Your task to perform on an android device: Search for hotels in Seattle Image 0: 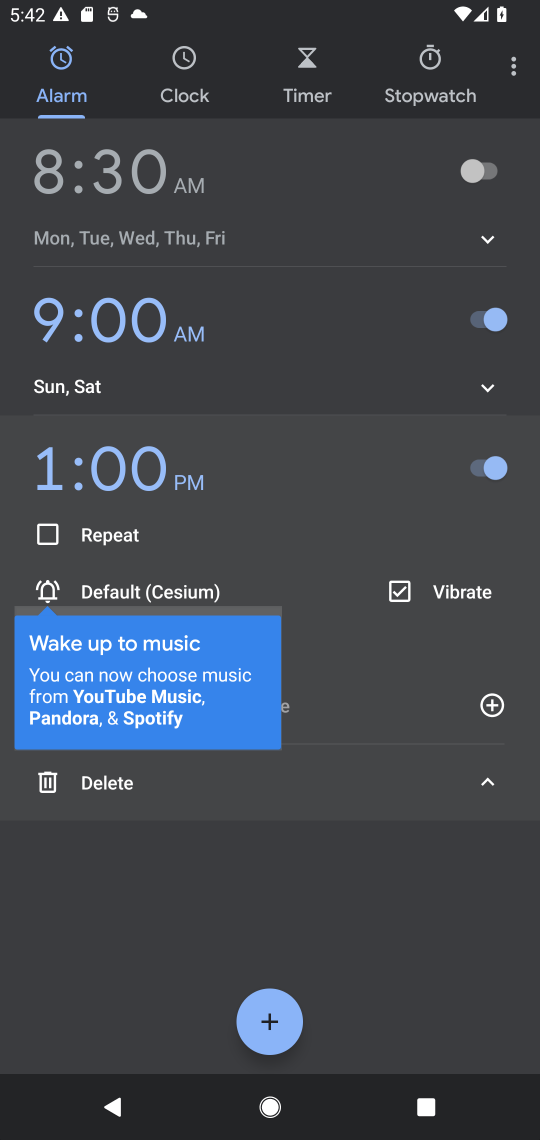
Step 0: press home button
Your task to perform on an android device: Search for hotels in Seattle Image 1: 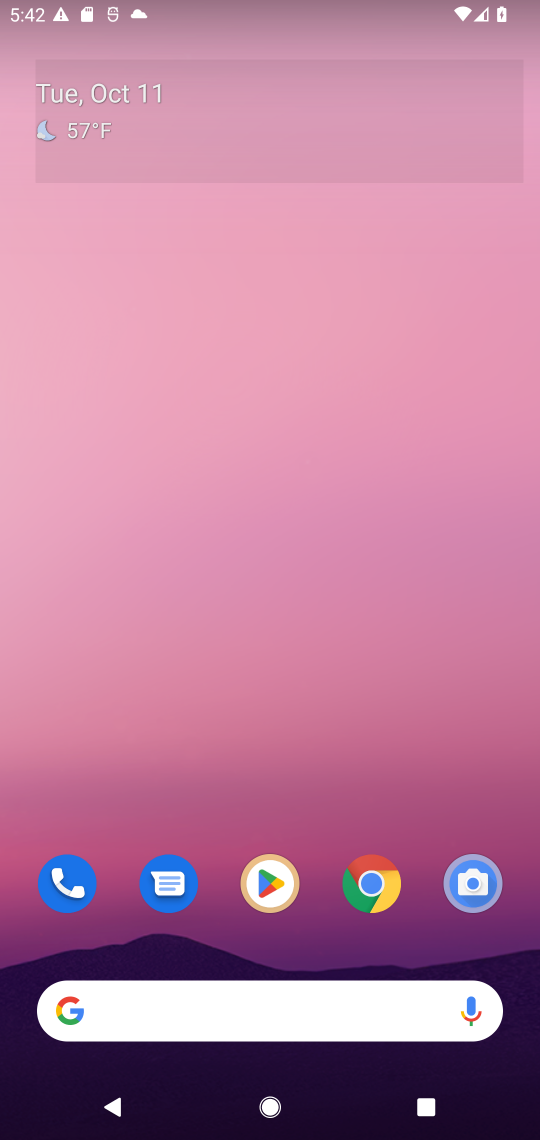
Step 1: click (378, 883)
Your task to perform on an android device: Search for hotels in Seattle Image 2: 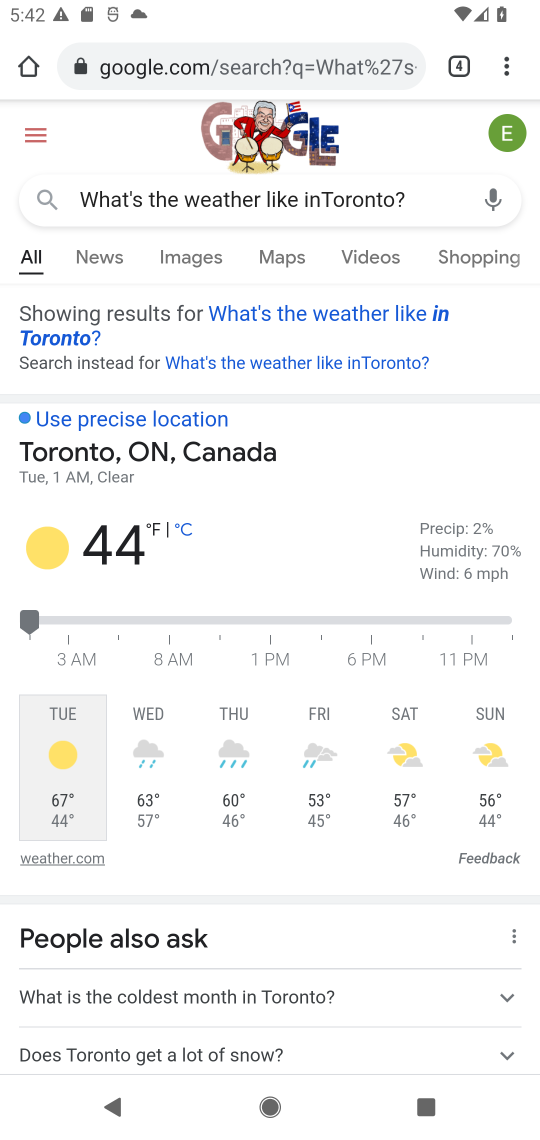
Step 2: click (340, 61)
Your task to perform on an android device: Search for hotels in Seattle Image 3: 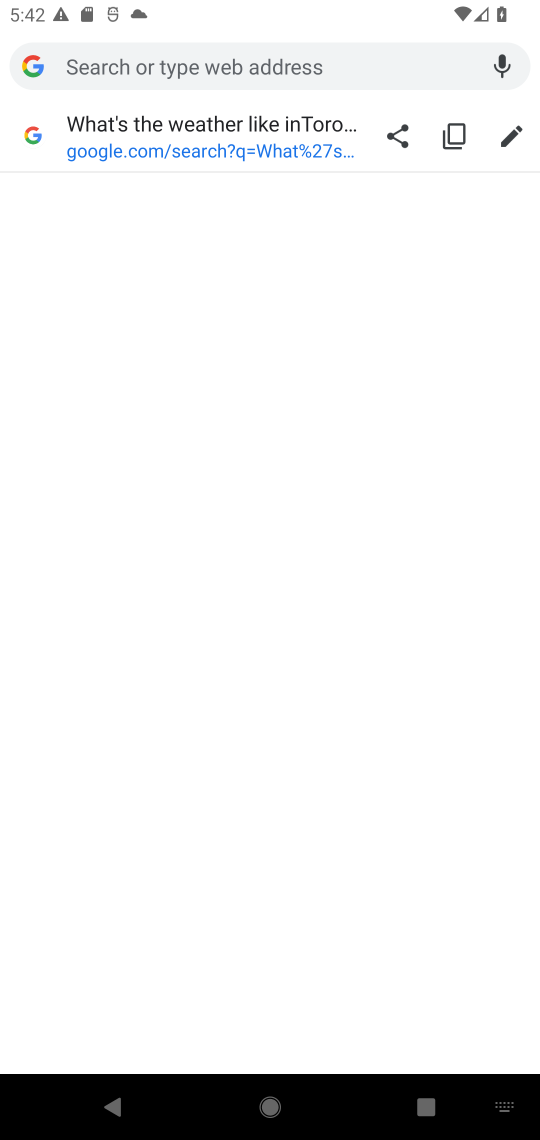
Step 3: type "hotels in Seattle"
Your task to perform on an android device: Search for hotels in Seattle Image 4: 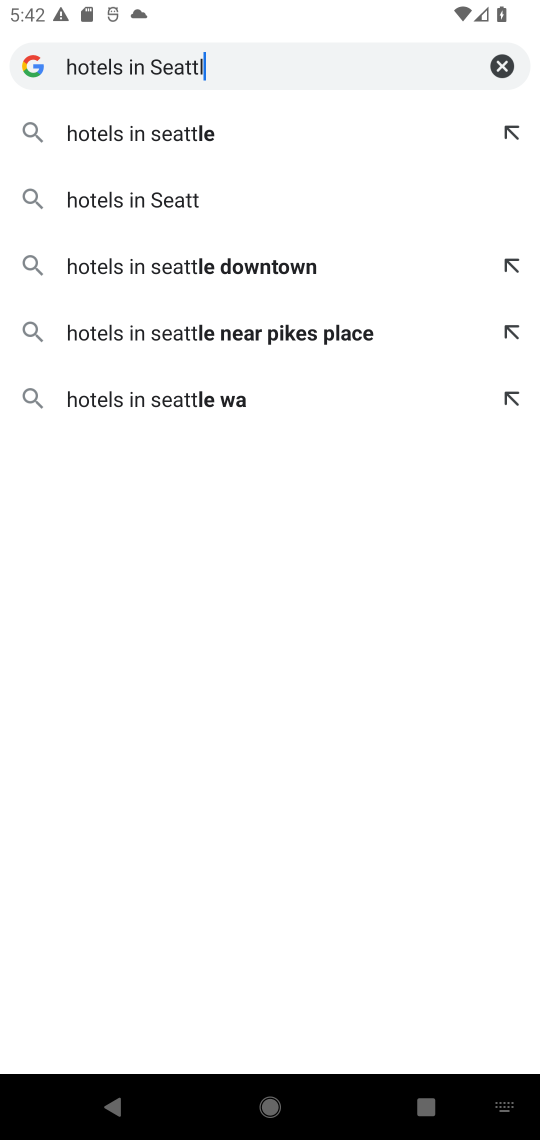
Step 4: press enter
Your task to perform on an android device: Search for hotels in Seattle Image 5: 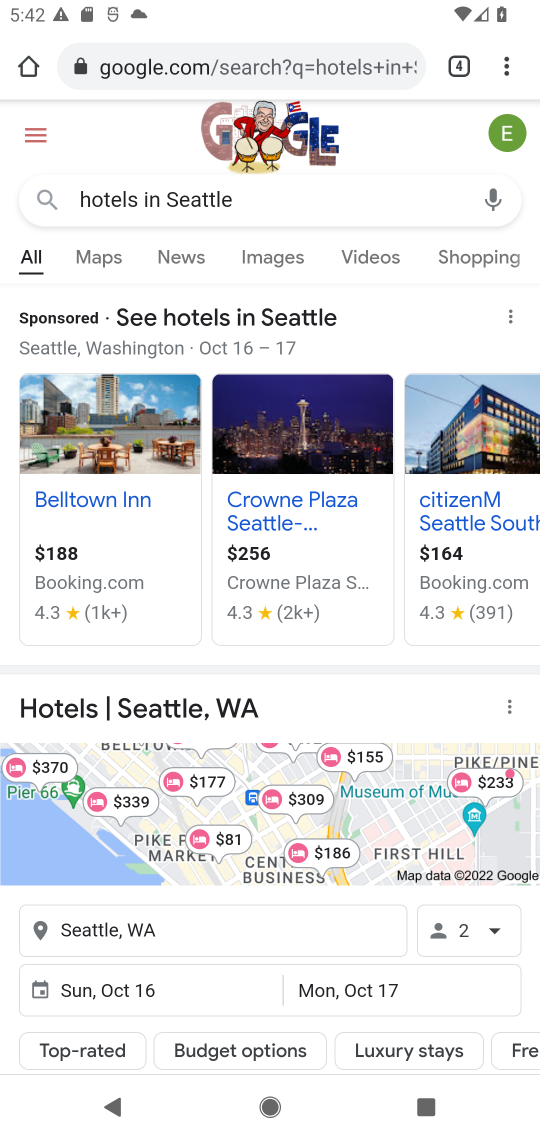
Step 5: task complete